Your task to perform on an android device: toggle airplane mode Image 0: 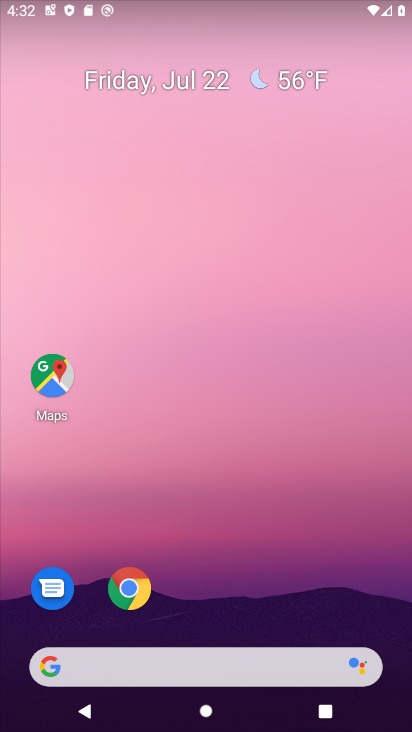
Step 0: drag from (229, 607) to (233, 197)
Your task to perform on an android device: toggle airplane mode Image 1: 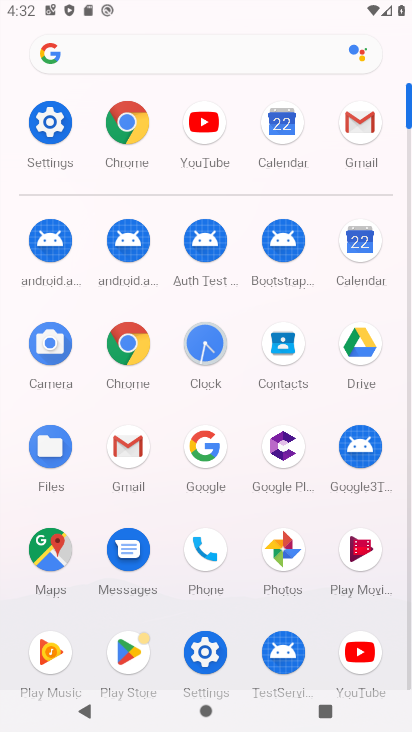
Step 1: click (54, 127)
Your task to perform on an android device: toggle airplane mode Image 2: 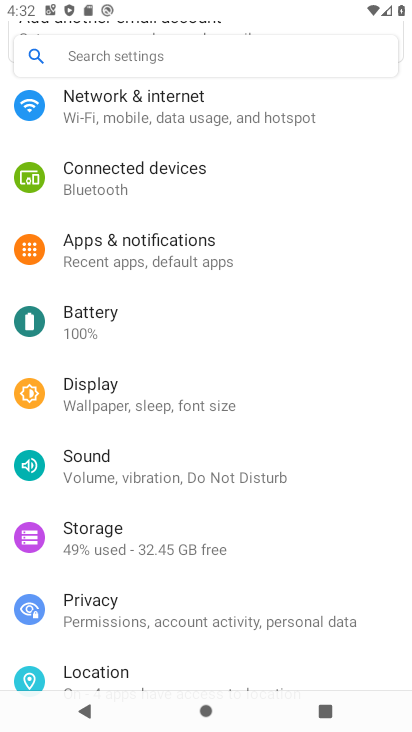
Step 2: drag from (191, 229) to (206, 529)
Your task to perform on an android device: toggle airplane mode Image 3: 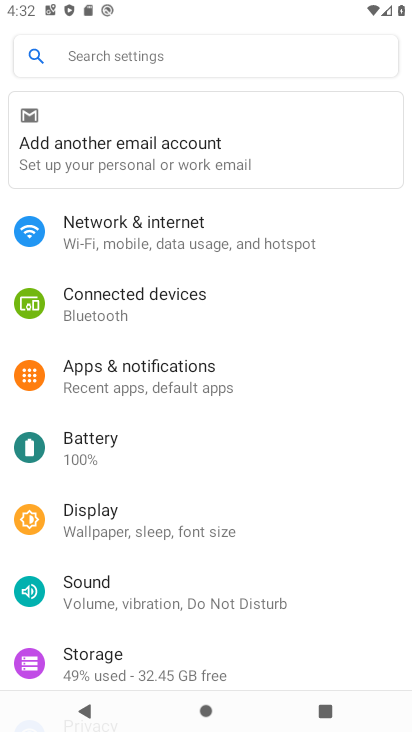
Step 3: click (202, 234)
Your task to perform on an android device: toggle airplane mode Image 4: 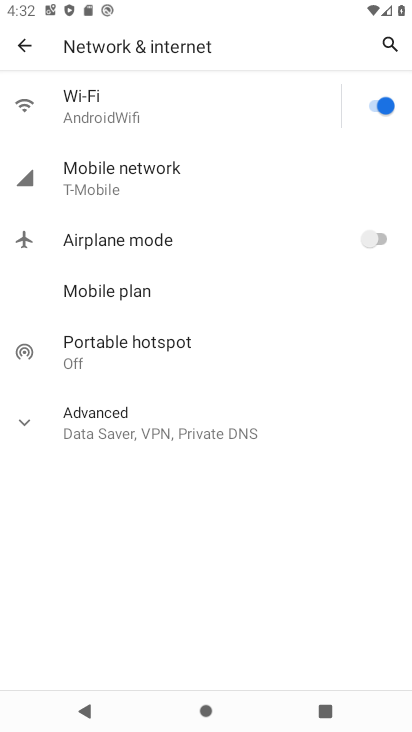
Step 4: click (377, 241)
Your task to perform on an android device: toggle airplane mode Image 5: 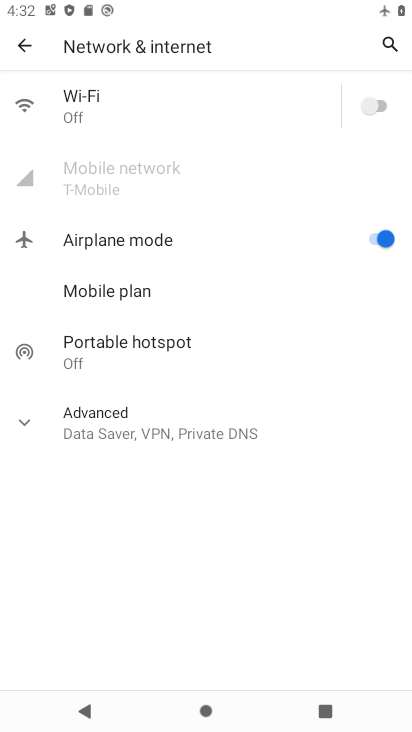
Step 5: task complete